Your task to perform on an android device: Open my contact list Image 0: 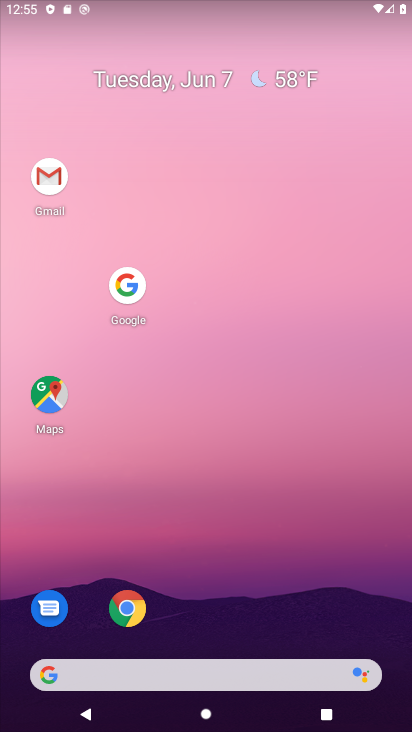
Step 0: drag from (286, 543) to (325, 183)
Your task to perform on an android device: Open my contact list Image 1: 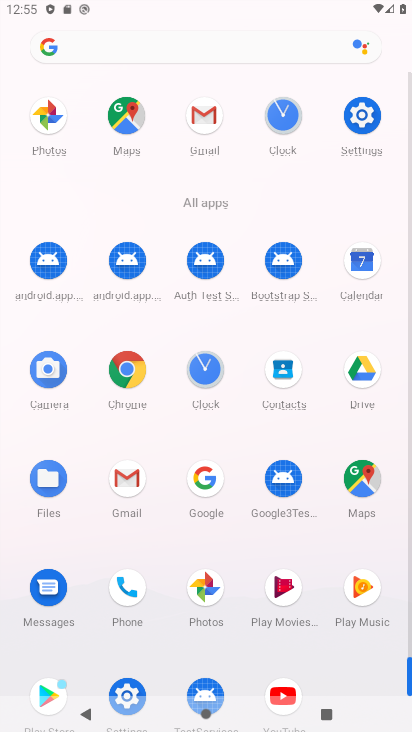
Step 1: drag from (278, 368) to (161, 239)
Your task to perform on an android device: Open my contact list Image 2: 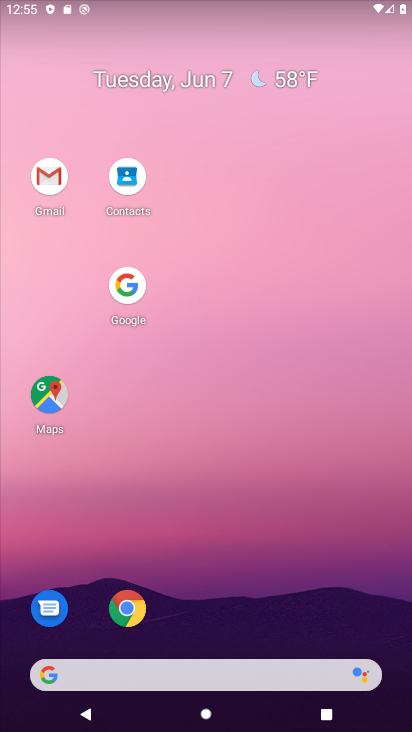
Step 2: drag from (127, 178) to (63, 298)
Your task to perform on an android device: Open my contact list Image 3: 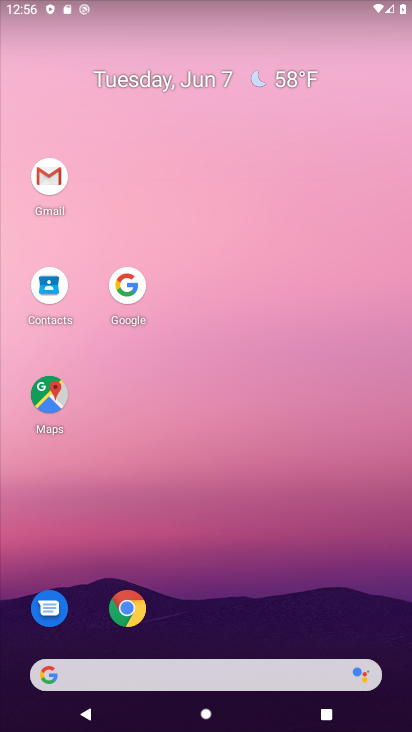
Step 3: click (60, 289)
Your task to perform on an android device: Open my contact list Image 4: 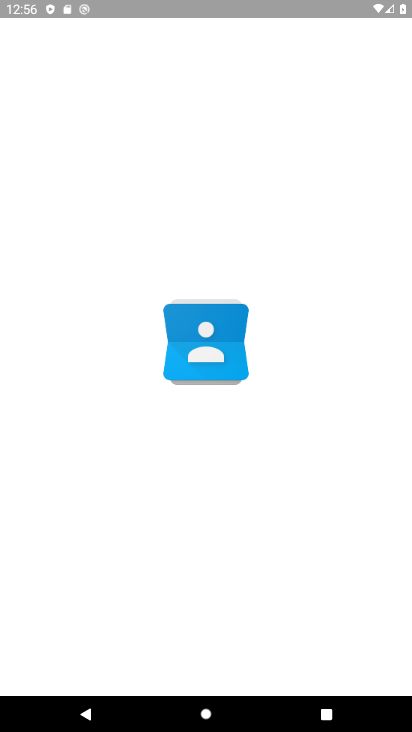
Step 4: task complete